Your task to perform on an android device: toggle translation in the chrome app Image 0: 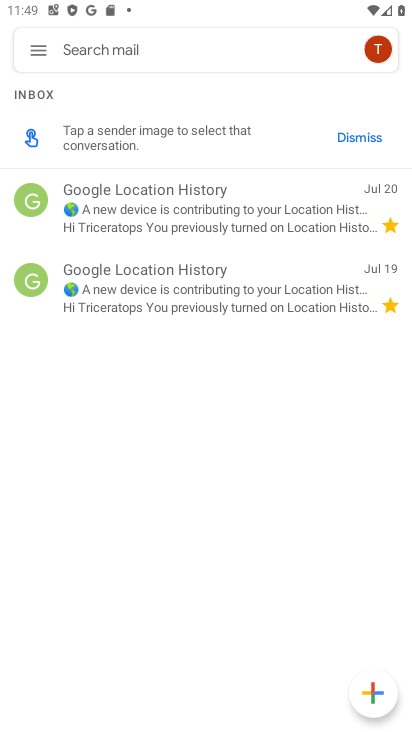
Step 0: press home button
Your task to perform on an android device: toggle translation in the chrome app Image 1: 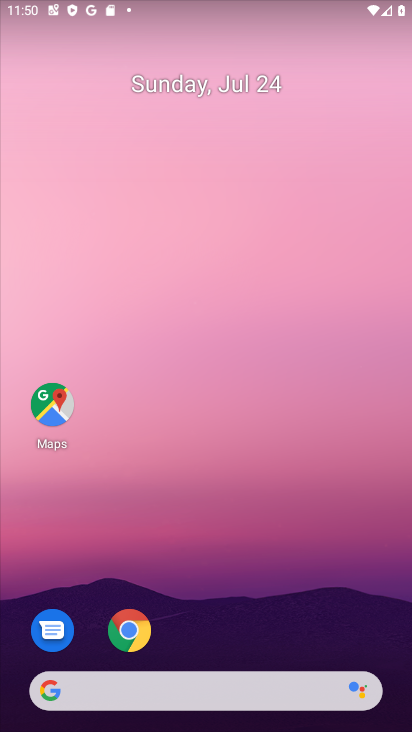
Step 1: drag from (214, 564) to (299, 3)
Your task to perform on an android device: toggle translation in the chrome app Image 2: 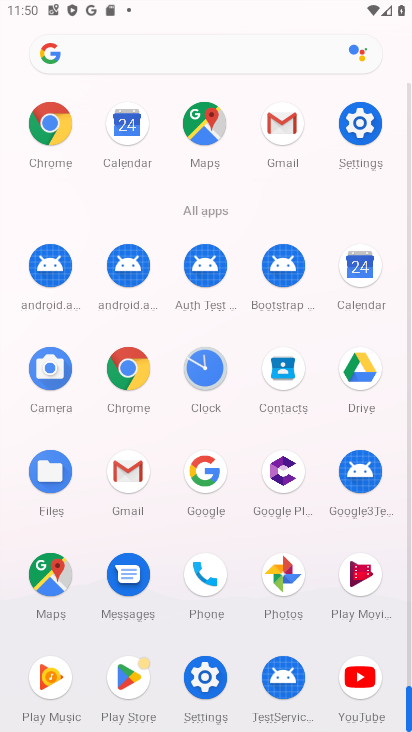
Step 2: click (63, 114)
Your task to perform on an android device: toggle translation in the chrome app Image 3: 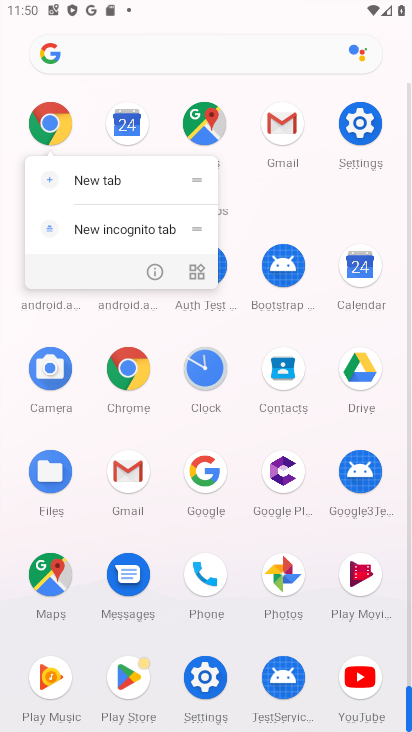
Step 3: click (37, 122)
Your task to perform on an android device: toggle translation in the chrome app Image 4: 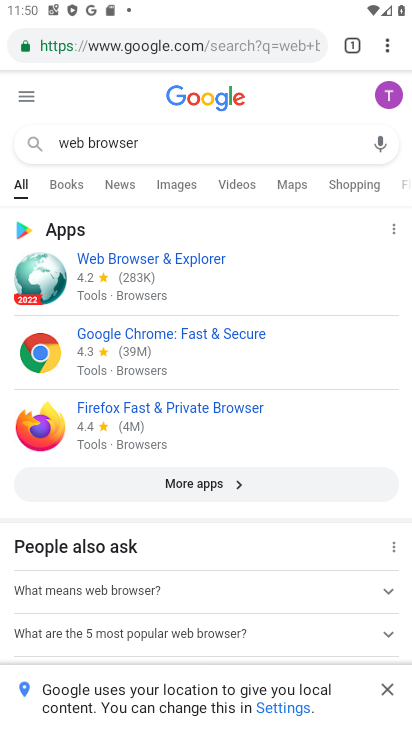
Step 4: drag from (384, 40) to (269, 566)
Your task to perform on an android device: toggle translation in the chrome app Image 5: 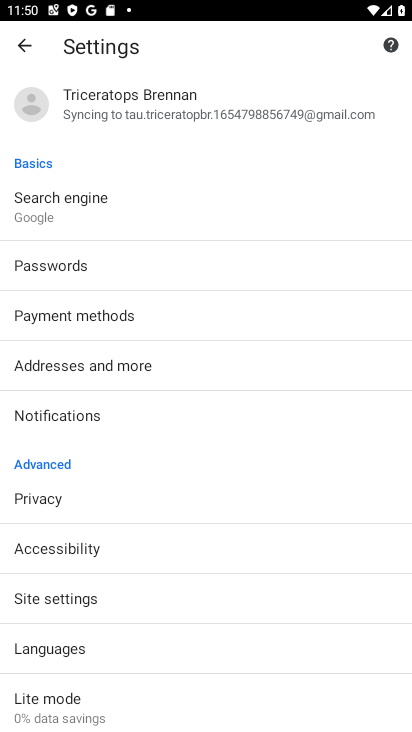
Step 5: click (48, 634)
Your task to perform on an android device: toggle translation in the chrome app Image 6: 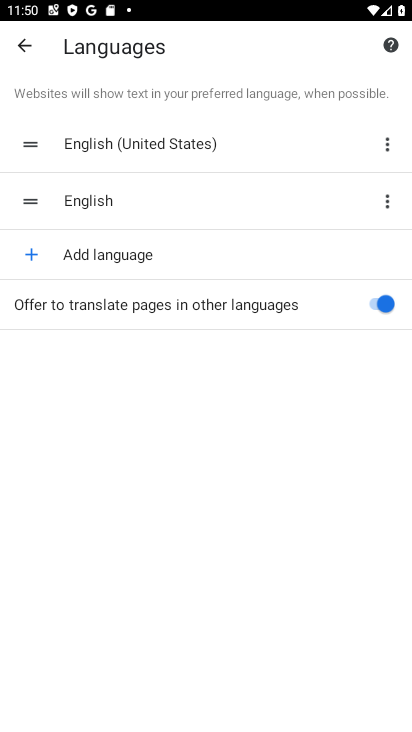
Step 6: click (235, 313)
Your task to perform on an android device: toggle translation in the chrome app Image 7: 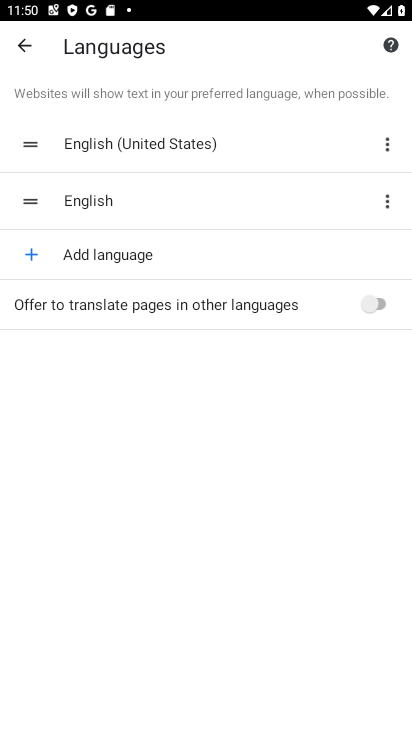
Step 7: task complete